Your task to perform on an android device: turn pop-ups off in chrome Image 0: 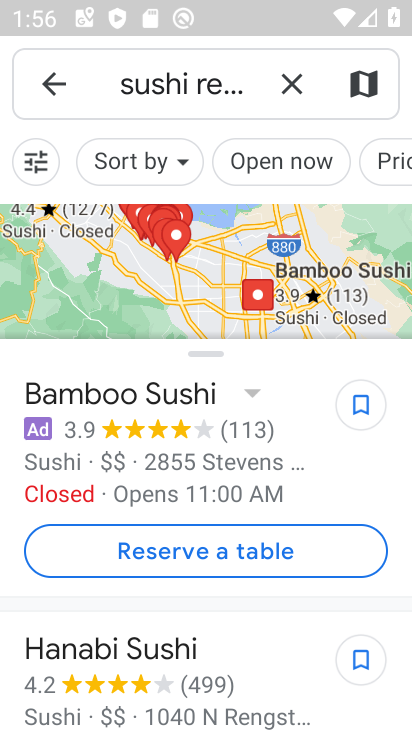
Step 0: press home button
Your task to perform on an android device: turn pop-ups off in chrome Image 1: 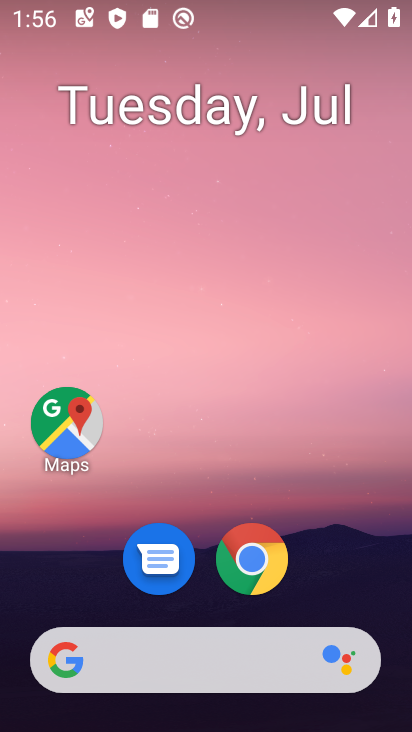
Step 1: drag from (355, 561) to (374, 113)
Your task to perform on an android device: turn pop-ups off in chrome Image 2: 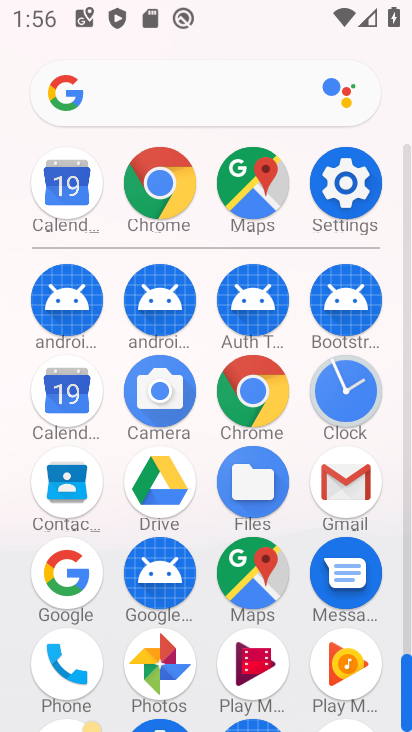
Step 2: click (264, 397)
Your task to perform on an android device: turn pop-ups off in chrome Image 3: 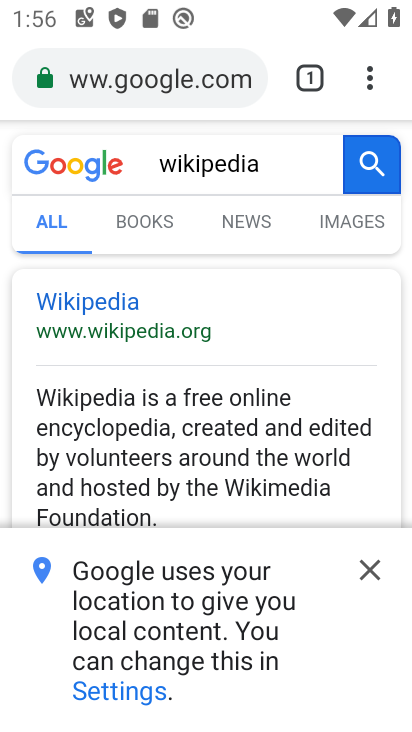
Step 3: click (367, 84)
Your task to perform on an android device: turn pop-ups off in chrome Image 4: 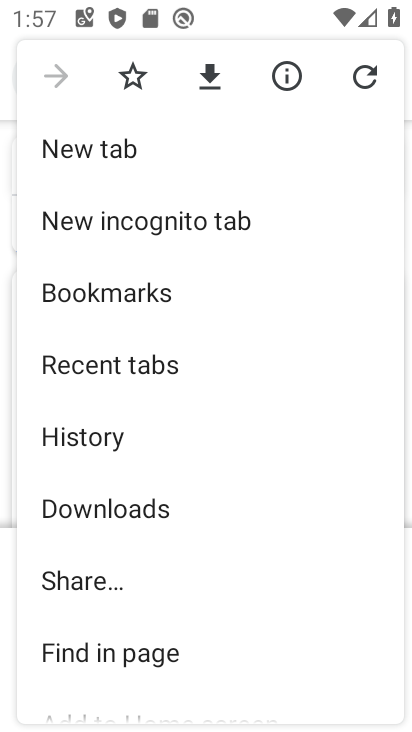
Step 4: drag from (338, 515) to (339, 446)
Your task to perform on an android device: turn pop-ups off in chrome Image 5: 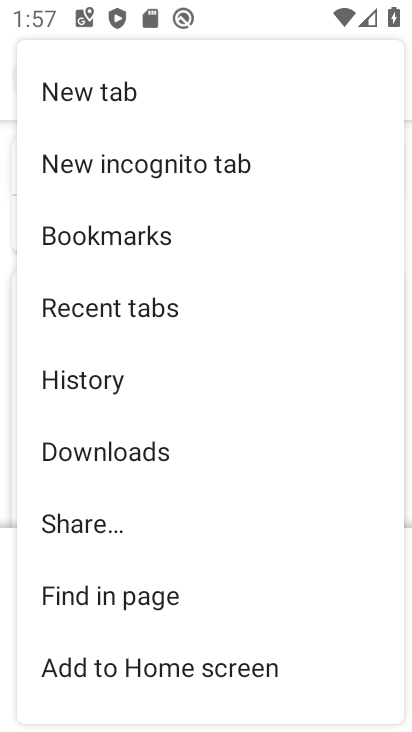
Step 5: drag from (331, 570) to (320, 437)
Your task to perform on an android device: turn pop-ups off in chrome Image 6: 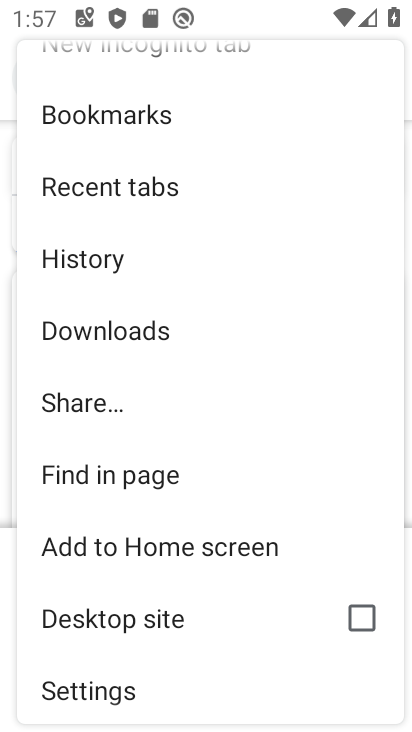
Step 6: drag from (292, 614) to (302, 468)
Your task to perform on an android device: turn pop-ups off in chrome Image 7: 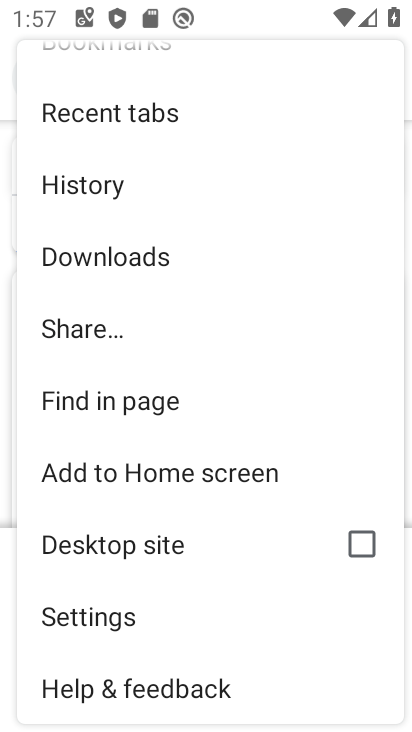
Step 7: click (145, 621)
Your task to perform on an android device: turn pop-ups off in chrome Image 8: 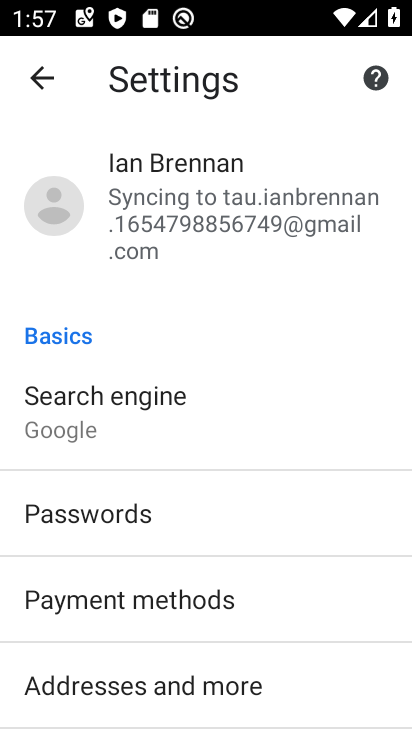
Step 8: drag from (340, 608) to (342, 534)
Your task to perform on an android device: turn pop-ups off in chrome Image 9: 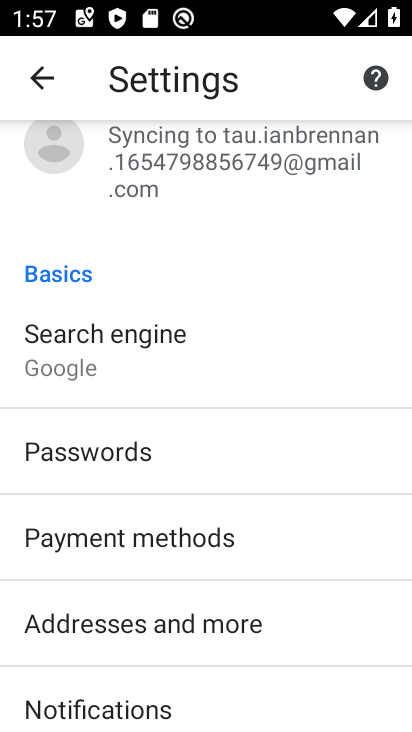
Step 9: drag from (335, 613) to (334, 538)
Your task to perform on an android device: turn pop-ups off in chrome Image 10: 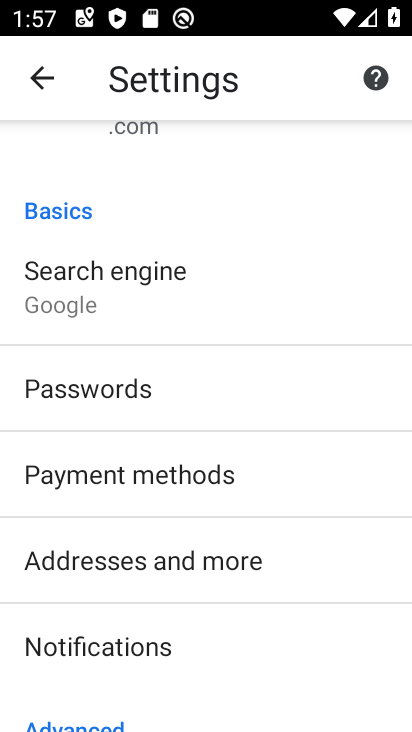
Step 10: drag from (323, 613) to (322, 531)
Your task to perform on an android device: turn pop-ups off in chrome Image 11: 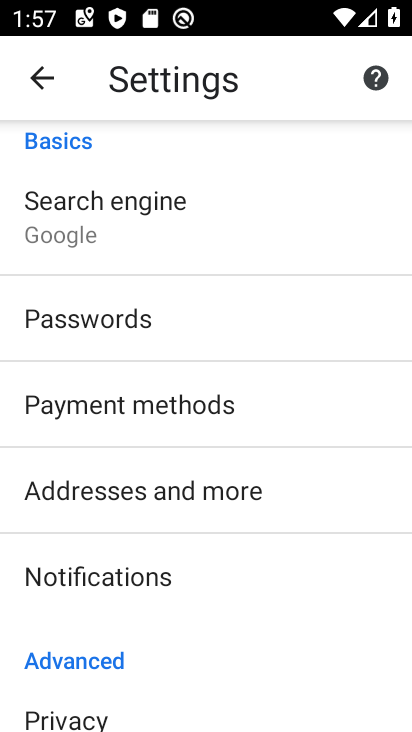
Step 11: drag from (310, 622) to (315, 506)
Your task to perform on an android device: turn pop-ups off in chrome Image 12: 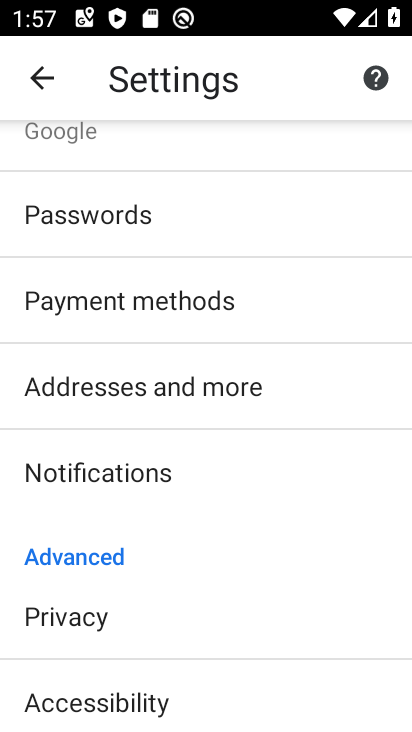
Step 12: drag from (311, 574) to (315, 487)
Your task to perform on an android device: turn pop-ups off in chrome Image 13: 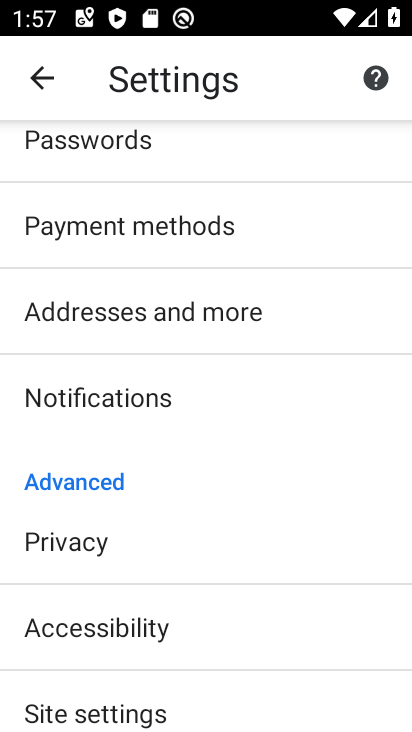
Step 13: drag from (312, 576) to (312, 476)
Your task to perform on an android device: turn pop-ups off in chrome Image 14: 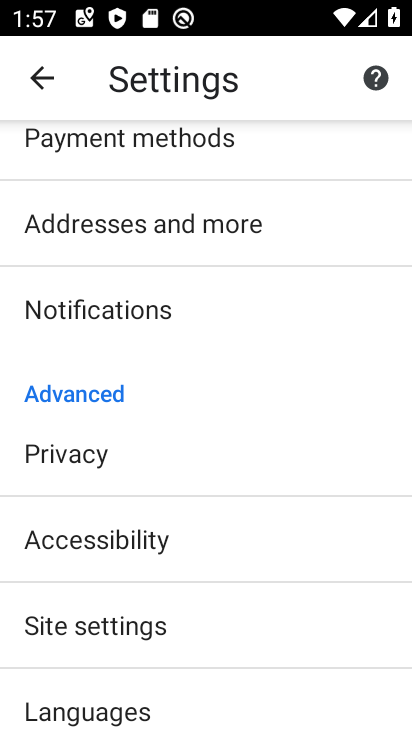
Step 14: drag from (312, 607) to (321, 515)
Your task to perform on an android device: turn pop-ups off in chrome Image 15: 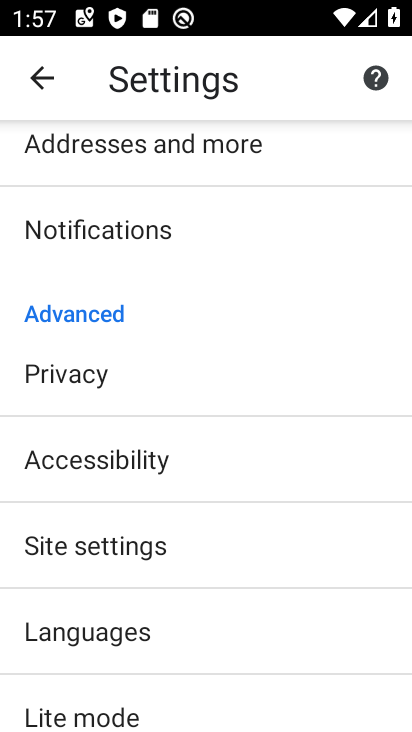
Step 15: click (303, 539)
Your task to perform on an android device: turn pop-ups off in chrome Image 16: 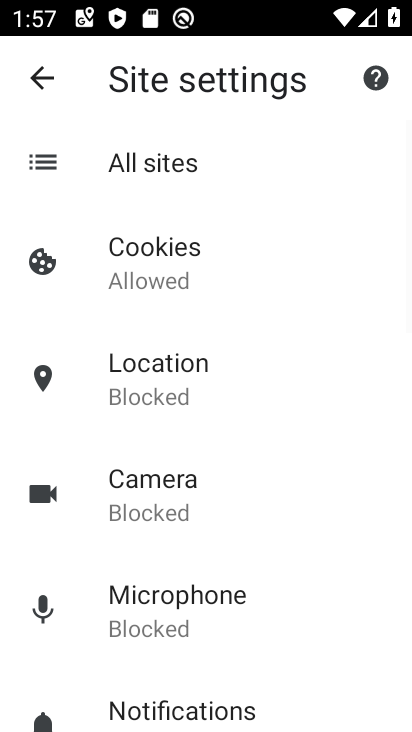
Step 16: drag from (305, 598) to (306, 514)
Your task to perform on an android device: turn pop-ups off in chrome Image 17: 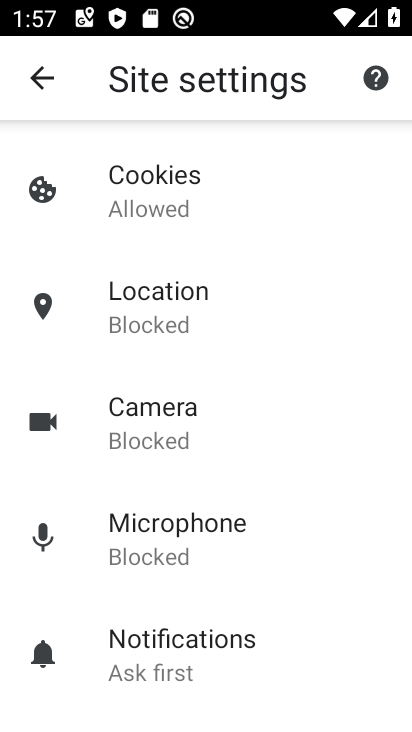
Step 17: drag from (303, 599) to (309, 516)
Your task to perform on an android device: turn pop-ups off in chrome Image 18: 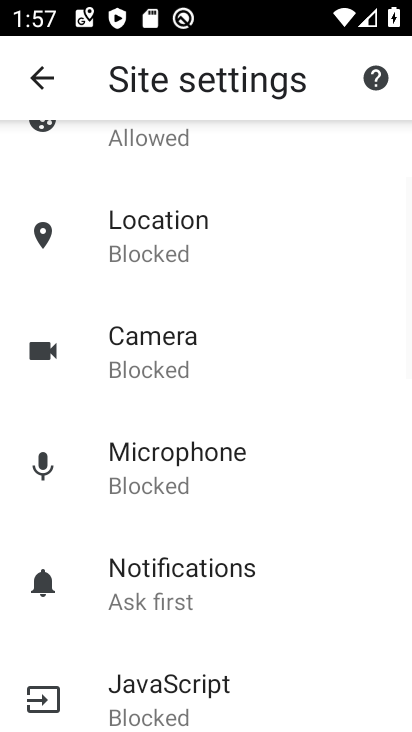
Step 18: drag from (307, 607) to (316, 517)
Your task to perform on an android device: turn pop-ups off in chrome Image 19: 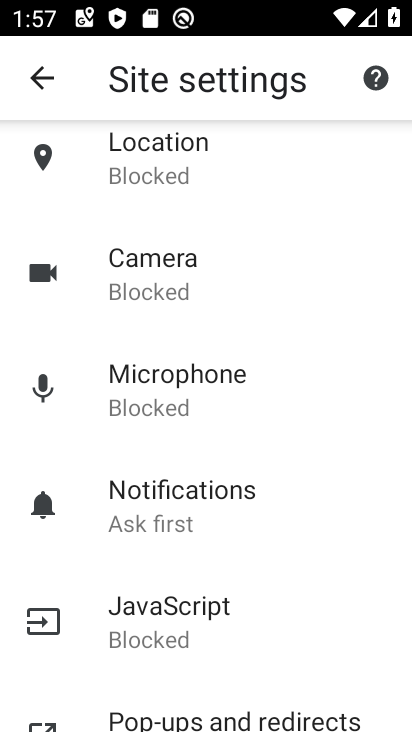
Step 19: drag from (313, 602) to (313, 517)
Your task to perform on an android device: turn pop-ups off in chrome Image 20: 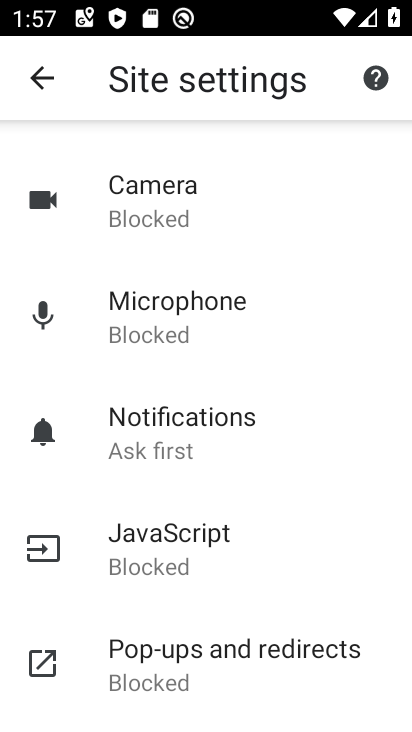
Step 20: drag from (301, 584) to (316, 486)
Your task to perform on an android device: turn pop-ups off in chrome Image 21: 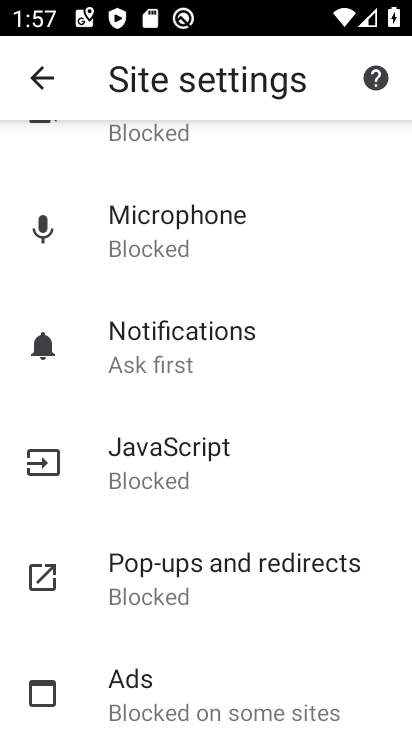
Step 21: drag from (318, 620) to (327, 511)
Your task to perform on an android device: turn pop-ups off in chrome Image 22: 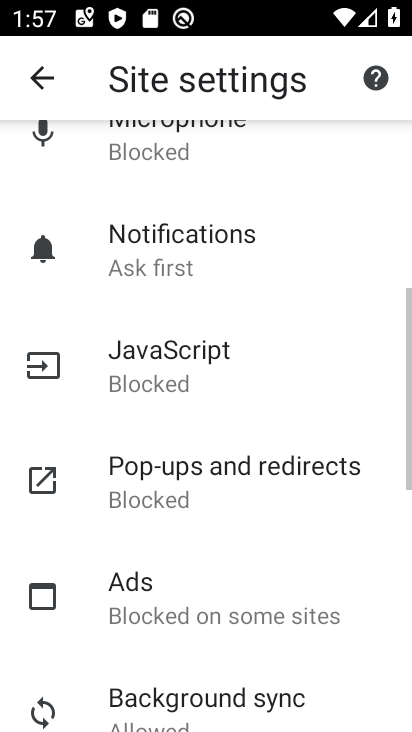
Step 22: click (325, 476)
Your task to perform on an android device: turn pop-ups off in chrome Image 23: 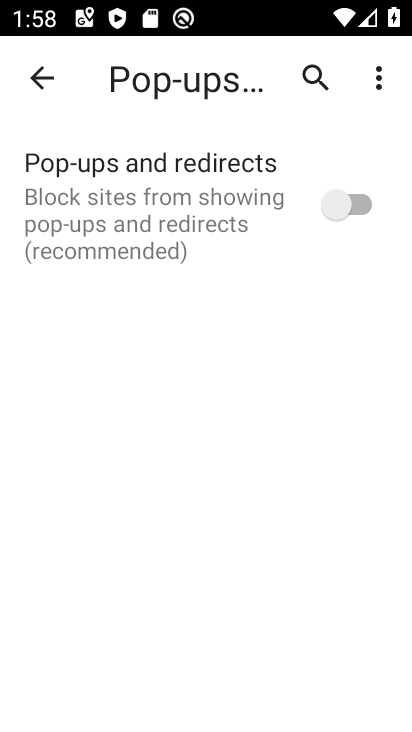
Step 23: task complete